Your task to perform on an android device: create a new album in the google photos Image 0: 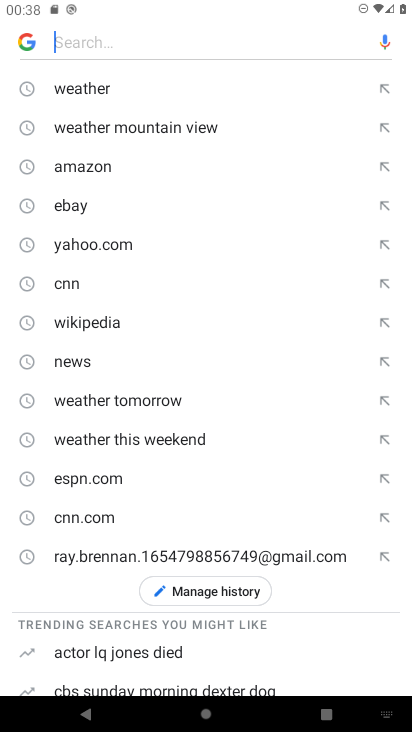
Step 0: press back button
Your task to perform on an android device: create a new album in the google photos Image 1: 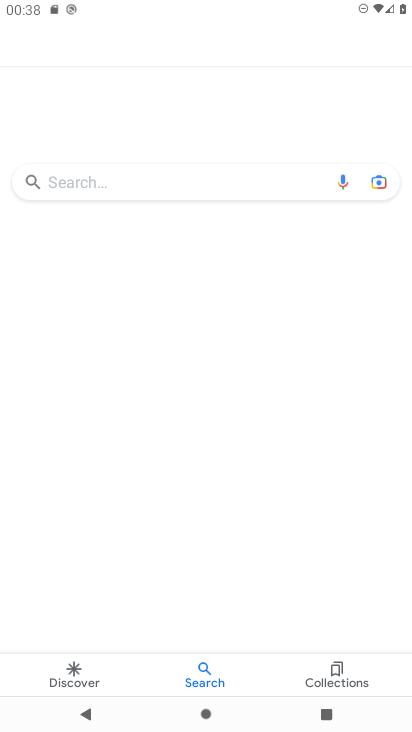
Step 1: press back button
Your task to perform on an android device: create a new album in the google photos Image 2: 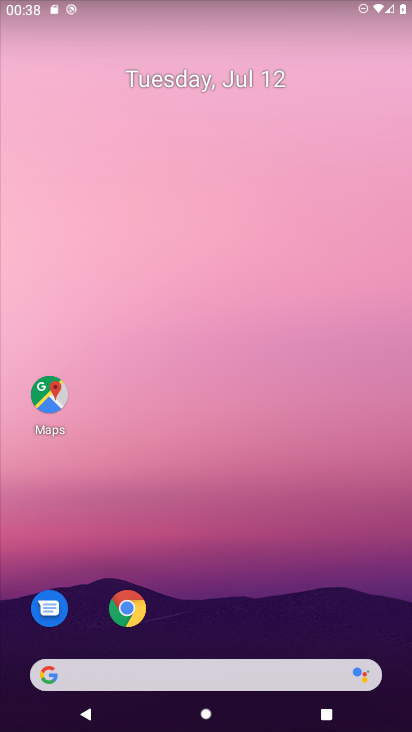
Step 2: drag from (228, 654) to (176, 75)
Your task to perform on an android device: create a new album in the google photos Image 3: 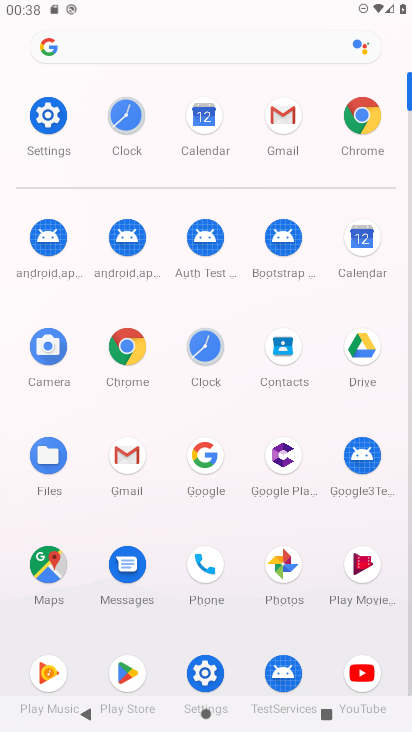
Step 3: click (283, 567)
Your task to perform on an android device: create a new album in the google photos Image 4: 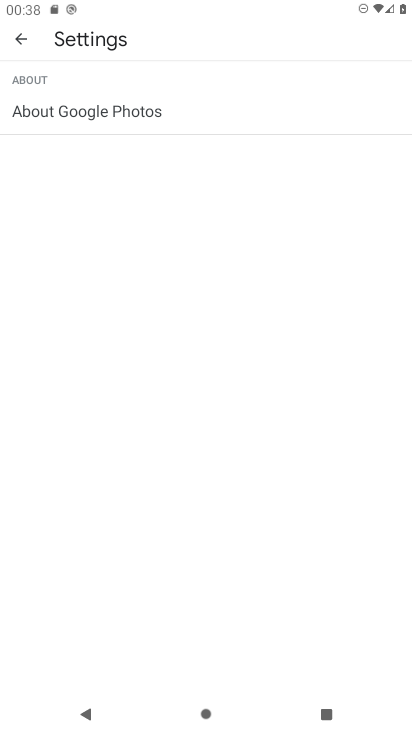
Step 4: click (21, 40)
Your task to perform on an android device: create a new album in the google photos Image 5: 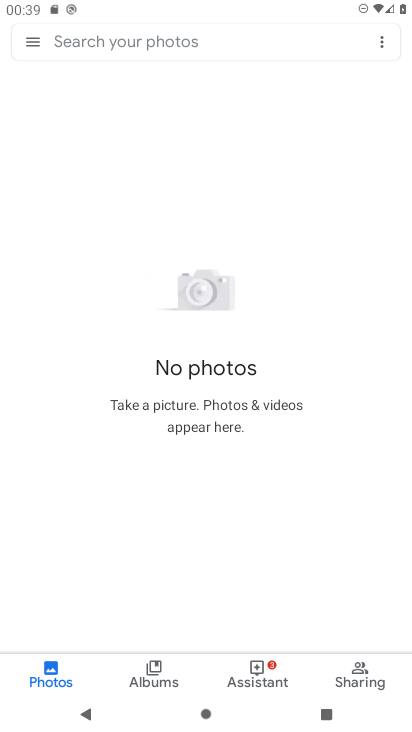
Step 5: click (142, 683)
Your task to perform on an android device: create a new album in the google photos Image 6: 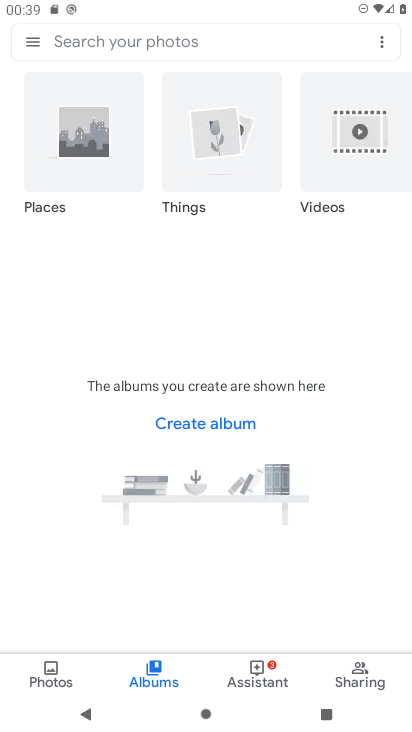
Step 6: click (215, 425)
Your task to perform on an android device: create a new album in the google photos Image 7: 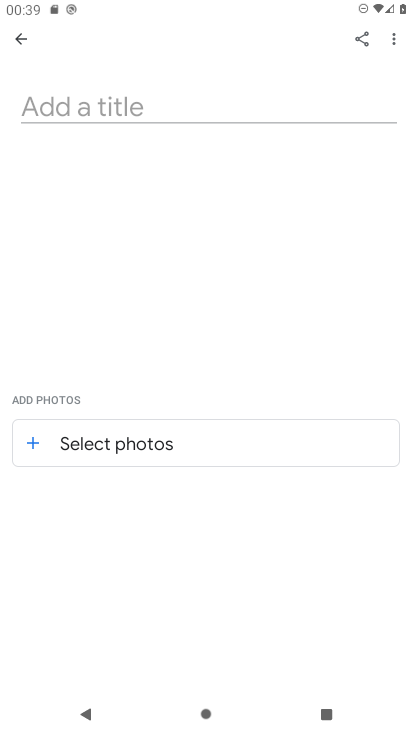
Step 7: click (128, 104)
Your task to perform on an android device: create a new album in the google photos Image 8: 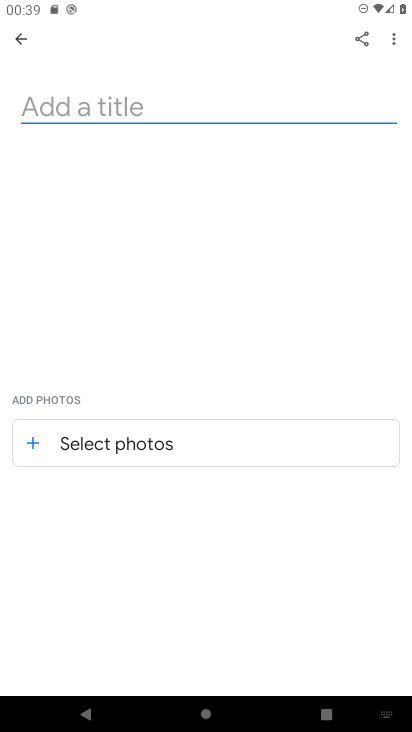
Step 8: type "fd"
Your task to perform on an android device: create a new album in the google photos Image 9: 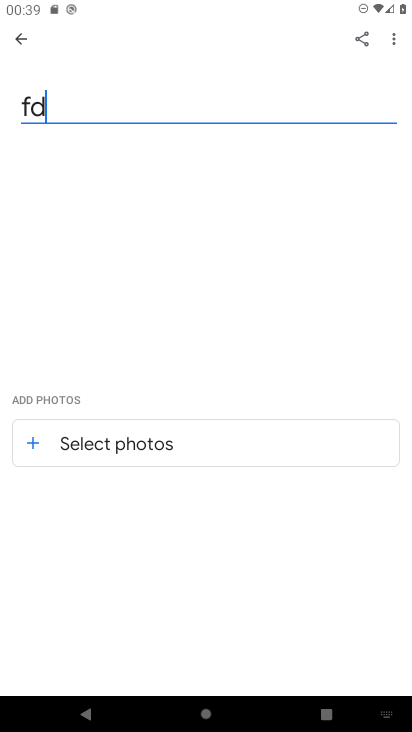
Step 9: click (393, 32)
Your task to perform on an android device: create a new album in the google photos Image 10: 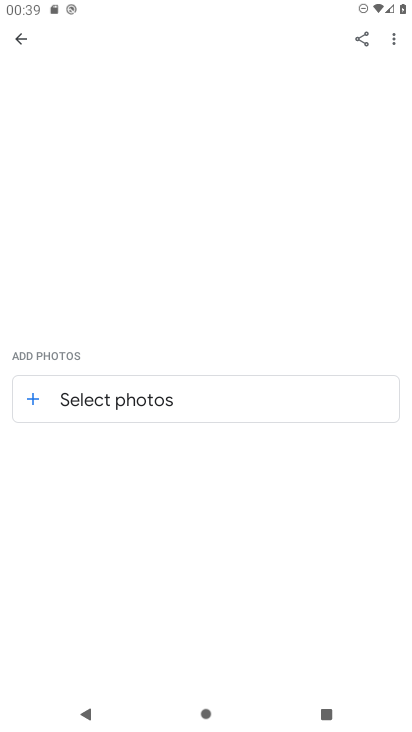
Step 10: click (199, 403)
Your task to perform on an android device: create a new album in the google photos Image 11: 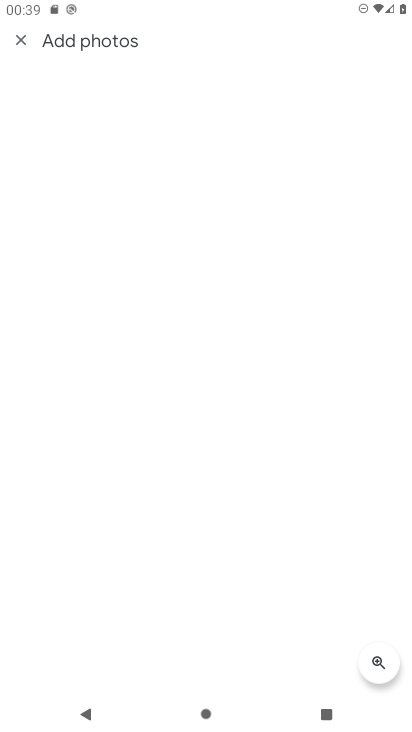
Step 11: task complete